Your task to perform on an android device: Install the eBay app Image 0: 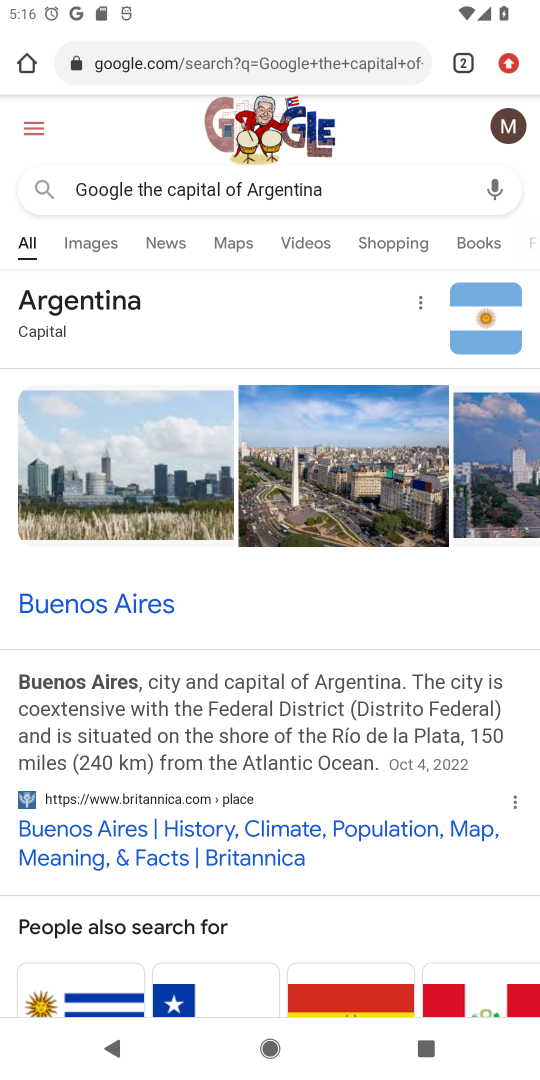
Step 0: press home button
Your task to perform on an android device: Install the eBay app Image 1: 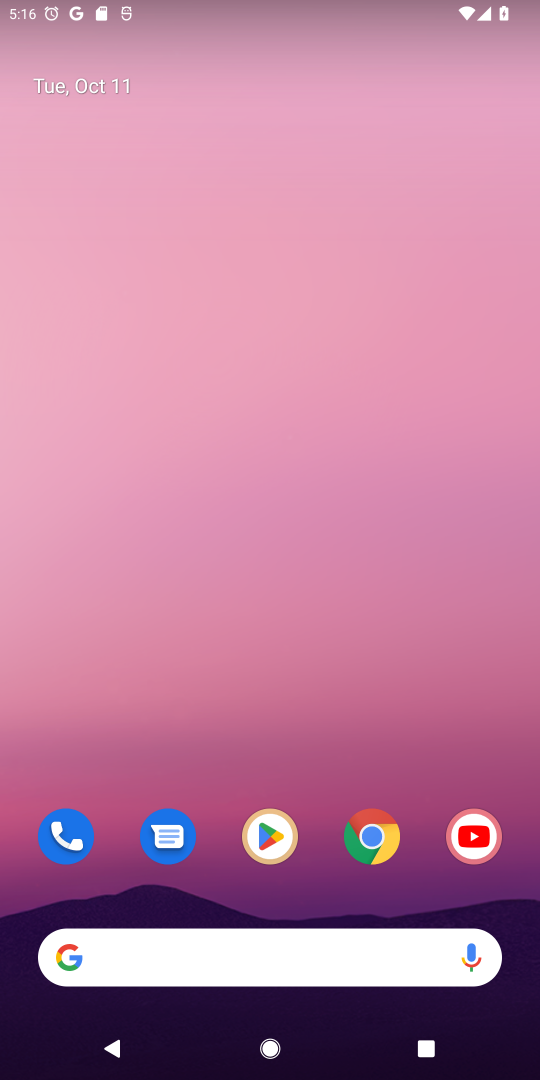
Step 1: click (279, 842)
Your task to perform on an android device: Install the eBay app Image 2: 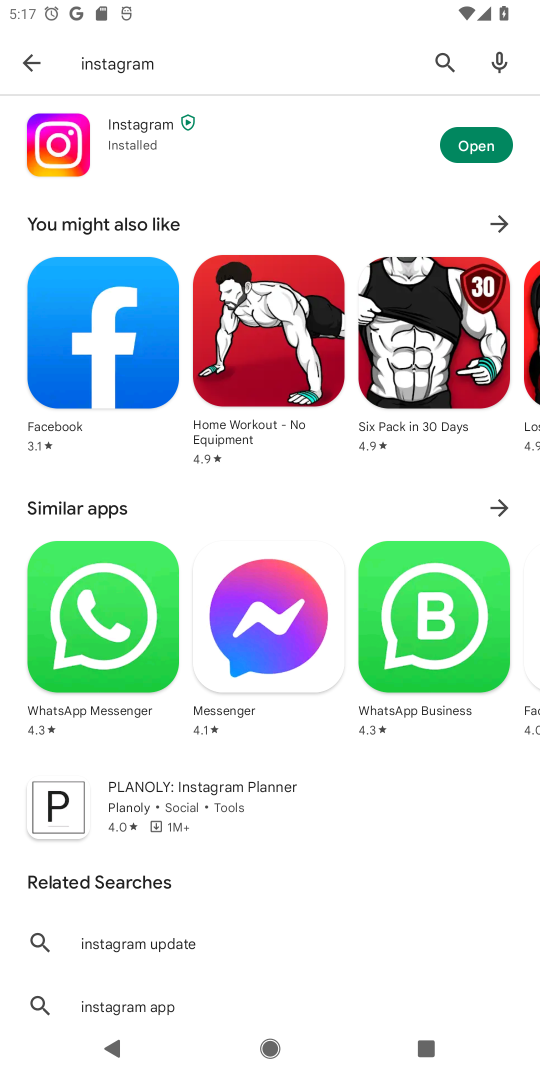
Step 2: click (452, 61)
Your task to perform on an android device: Install the eBay app Image 3: 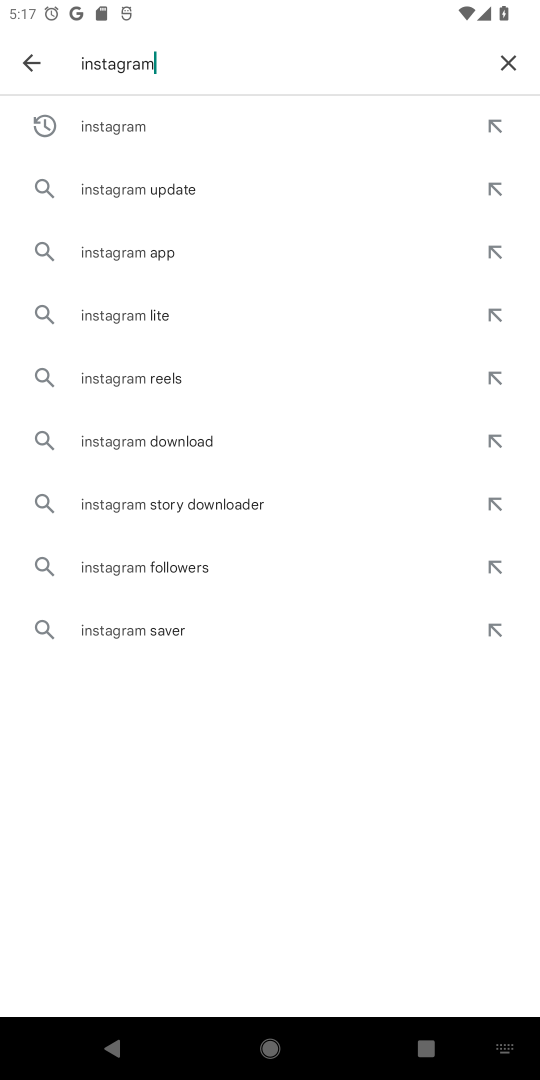
Step 3: click (502, 58)
Your task to perform on an android device: Install the eBay app Image 4: 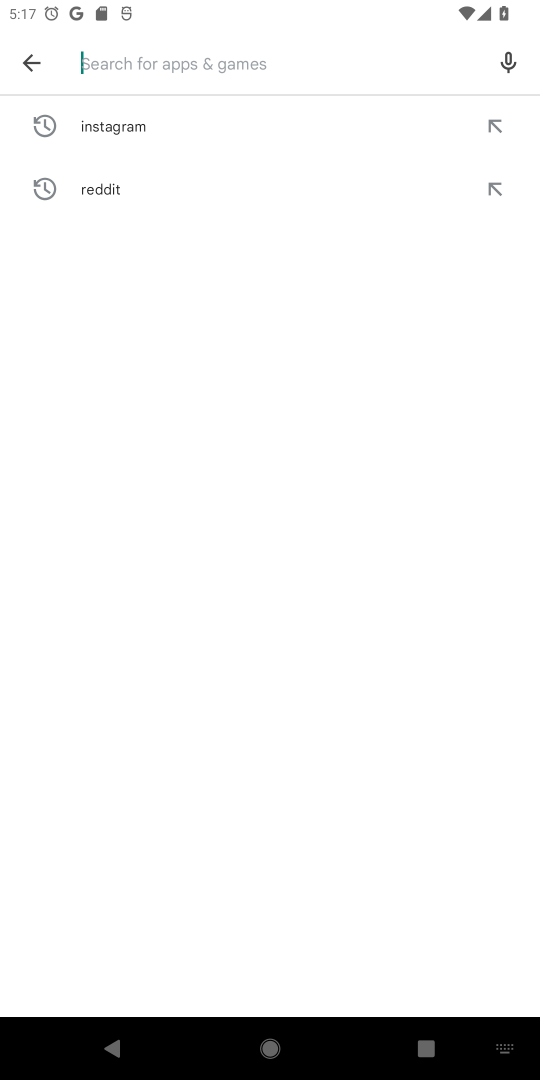
Step 4: type " eBay app"
Your task to perform on an android device: Install the eBay app Image 5: 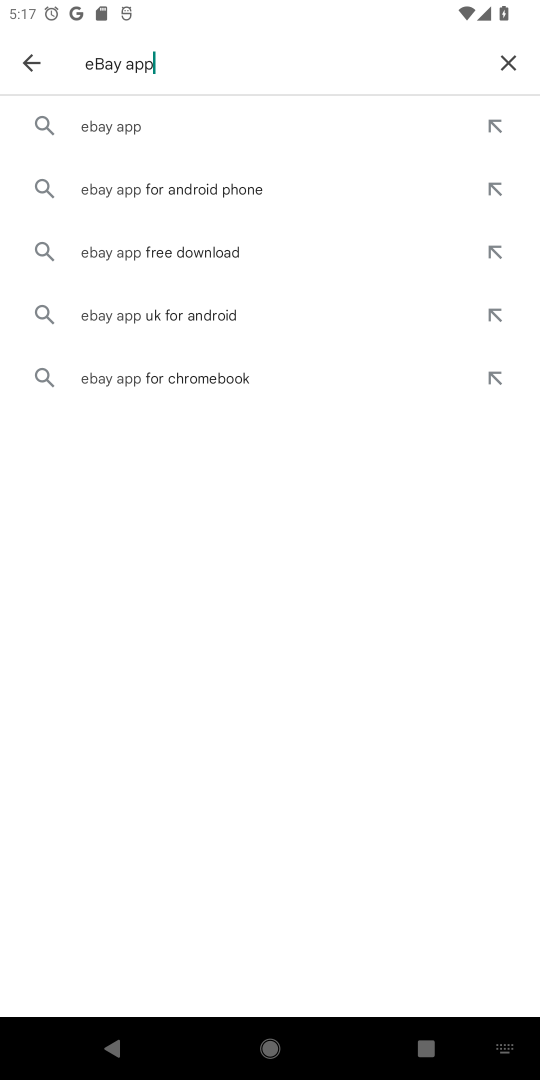
Step 5: click (94, 121)
Your task to perform on an android device: Install the eBay app Image 6: 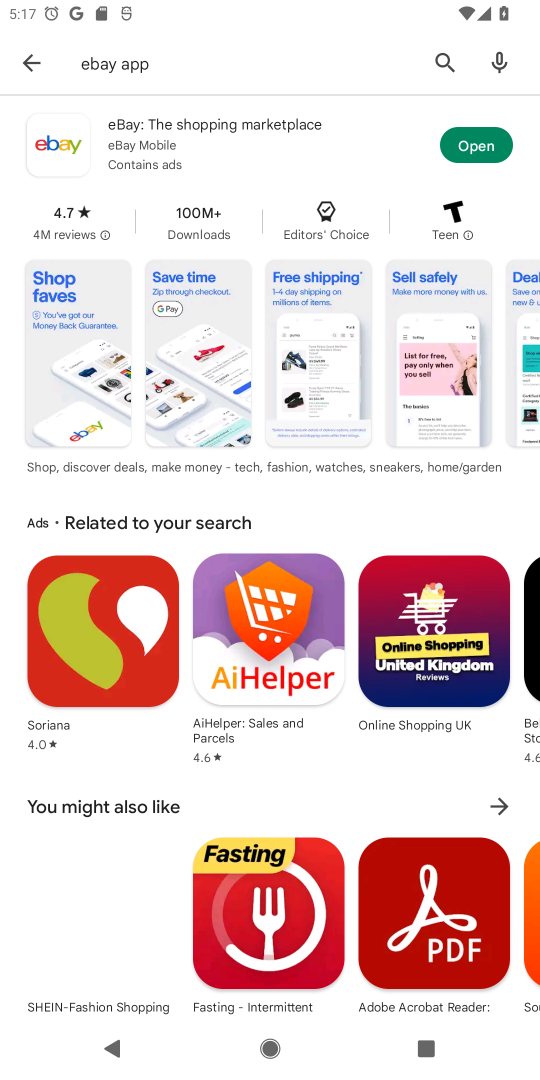
Step 6: click (473, 136)
Your task to perform on an android device: Install the eBay app Image 7: 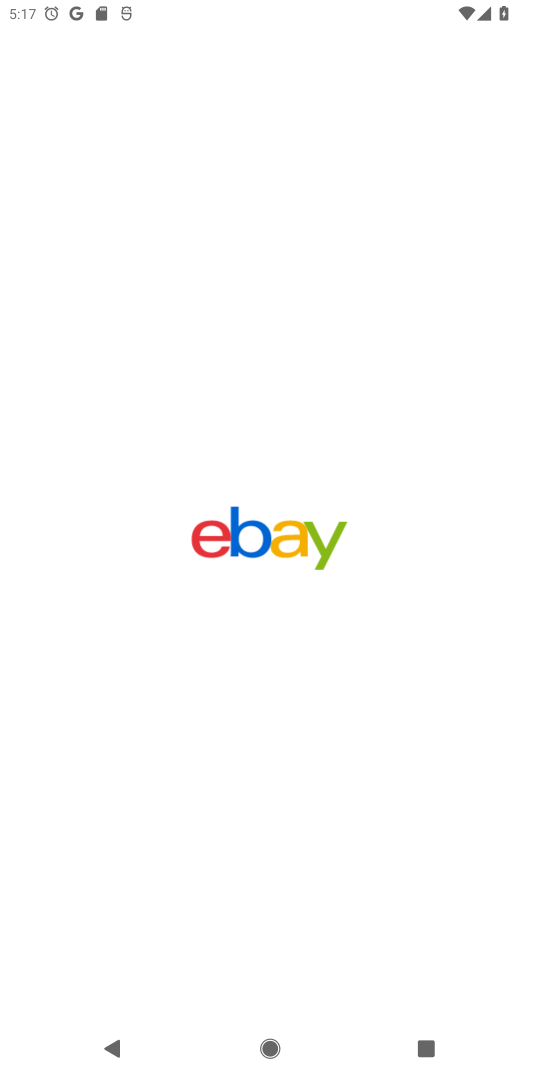
Step 7: task complete